Your task to perform on an android device: Turn on the flashlight Image 0: 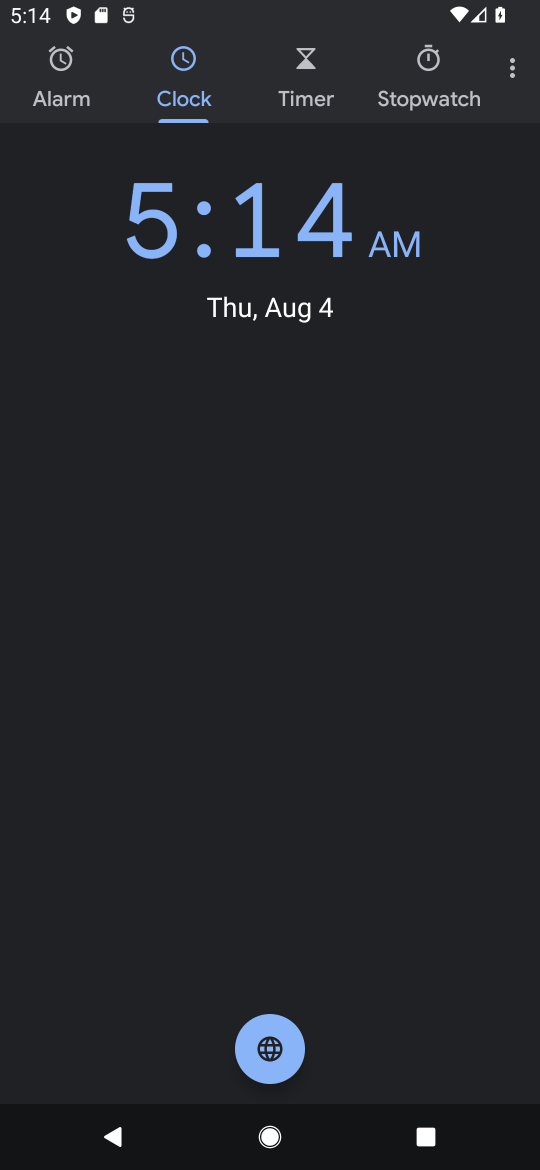
Step 0: press home button
Your task to perform on an android device: Turn on the flashlight Image 1: 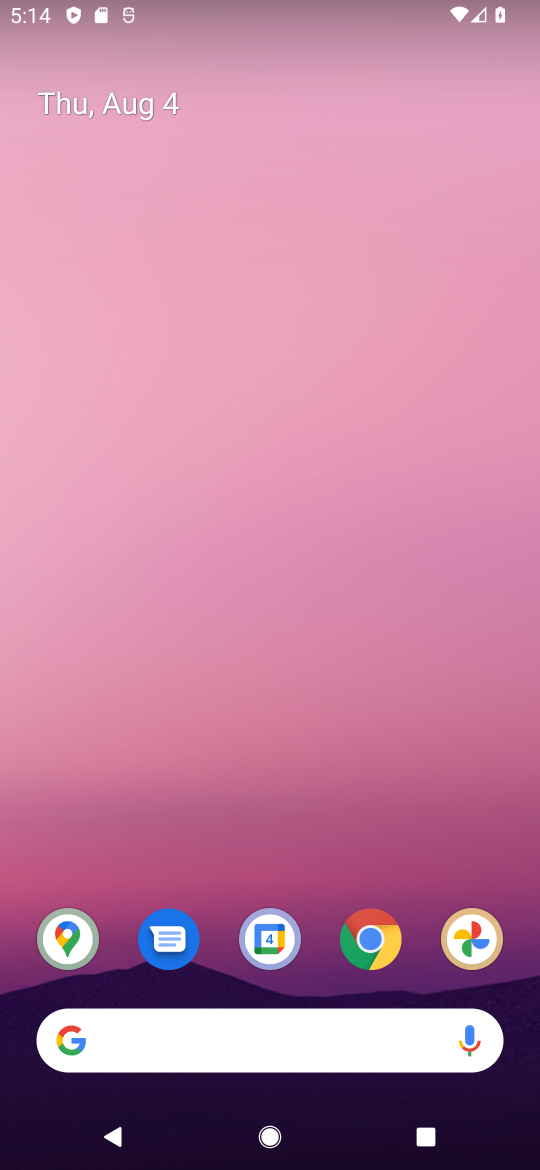
Step 1: drag from (219, 54) to (240, 821)
Your task to perform on an android device: Turn on the flashlight Image 2: 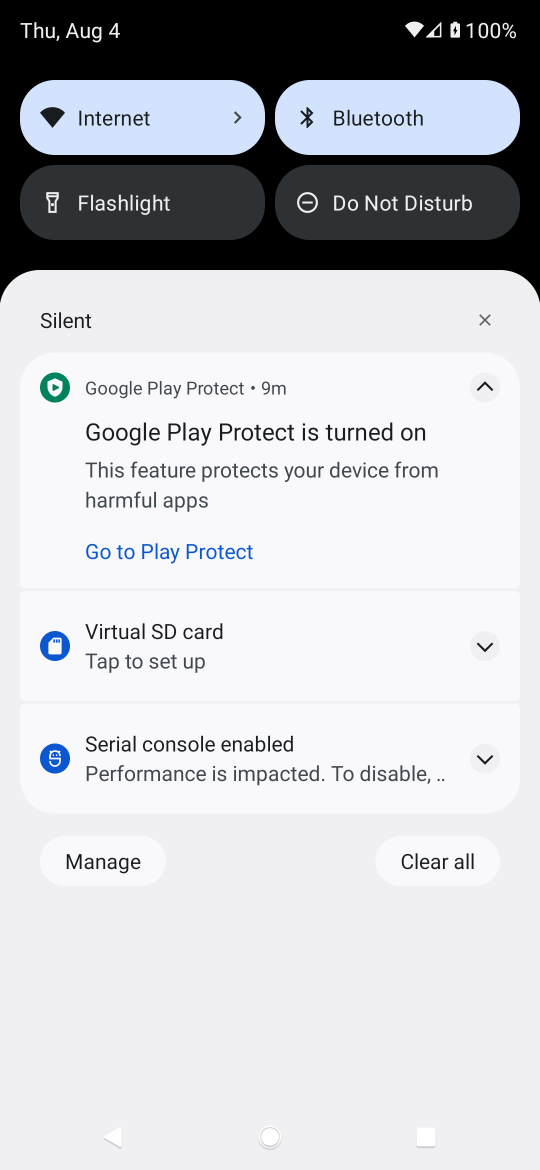
Step 2: click (136, 203)
Your task to perform on an android device: Turn on the flashlight Image 3: 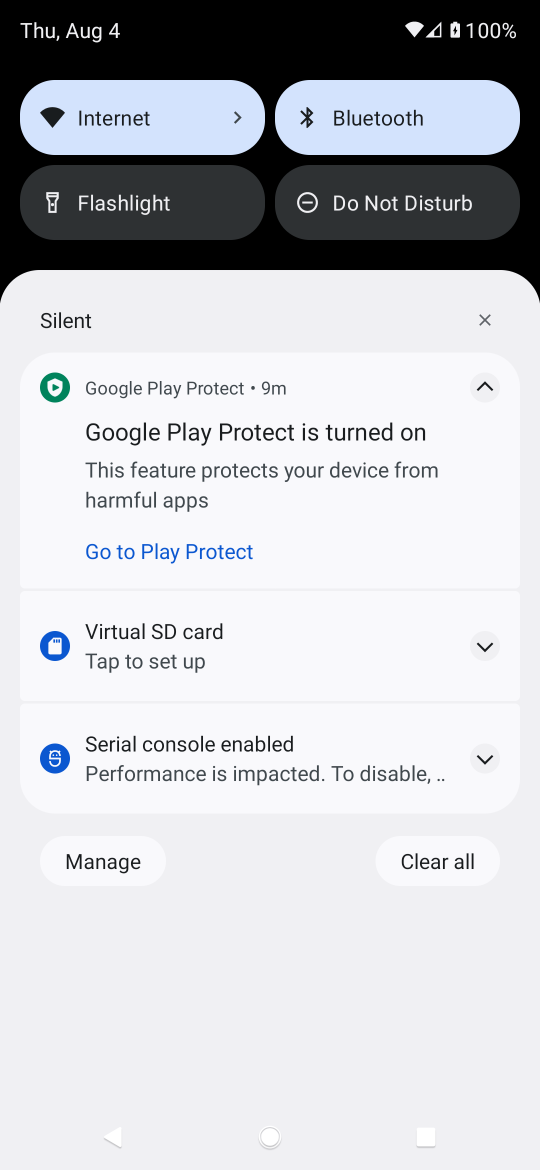
Step 3: task complete